Your task to perform on an android device: What's the weather going to be tomorrow? Image 0: 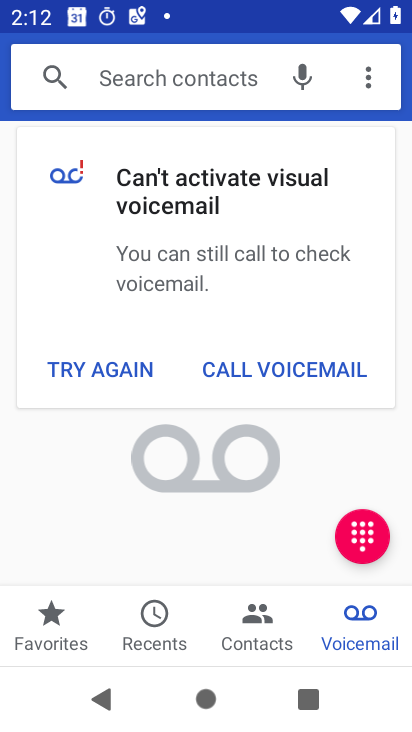
Step 0: press home button
Your task to perform on an android device: What's the weather going to be tomorrow? Image 1: 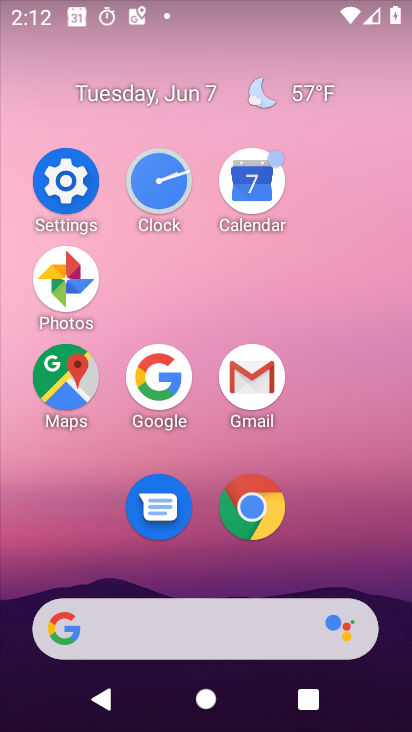
Step 1: click (156, 372)
Your task to perform on an android device: What's the weather going to be tomorrow? Image 2: 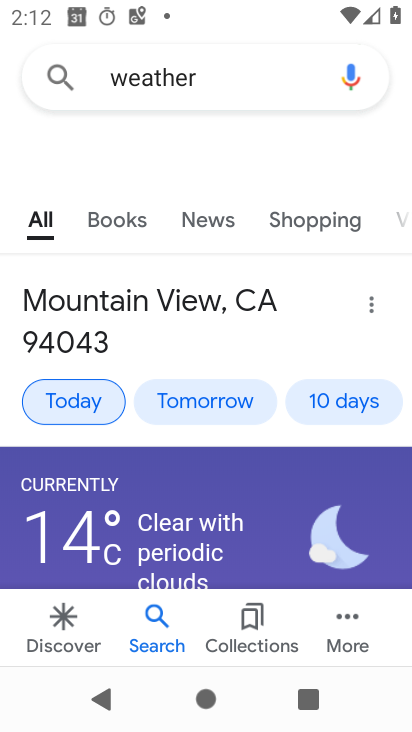
Step 2: click (223, 391)
Your task to perform on an android device: What's the weather going to be tomorrow? Image 3: 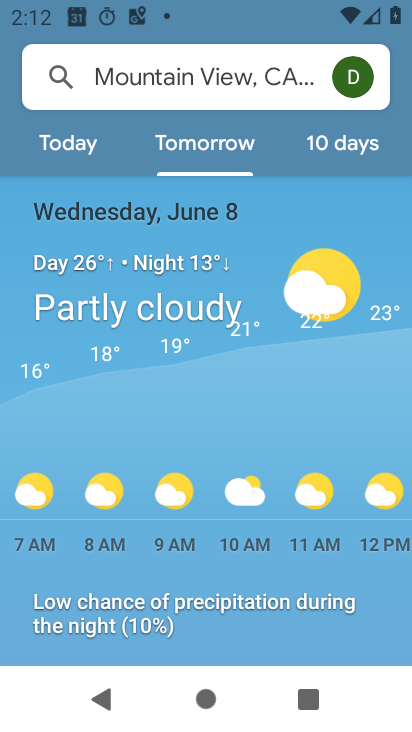
Step 3: task complete